Your task to perform on an android device: turn pop-ups off in chrome Image 0: 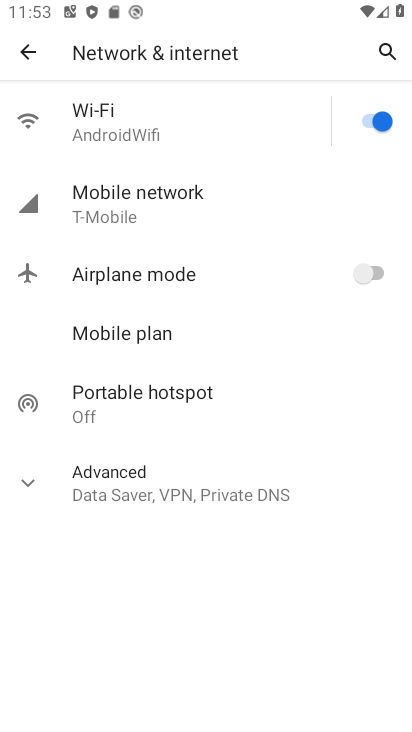
Step 0: press back button
Your task to perform on an android device: turn pop-ups off in chrome Image 1: 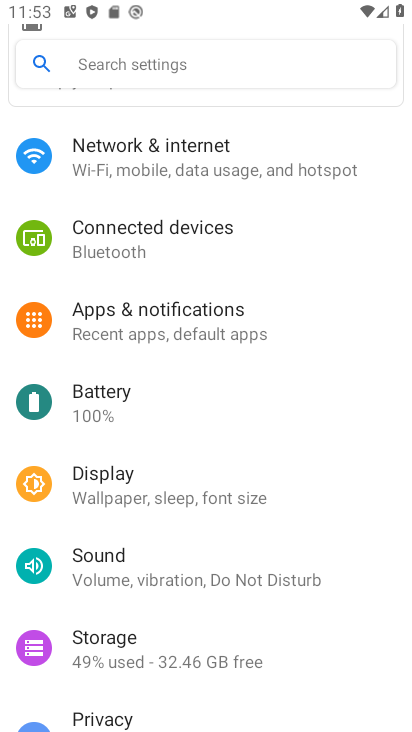
Step 1: click (241, 328)
Your task to perform on an android device: turn pop-ups off in chrome Image 2: 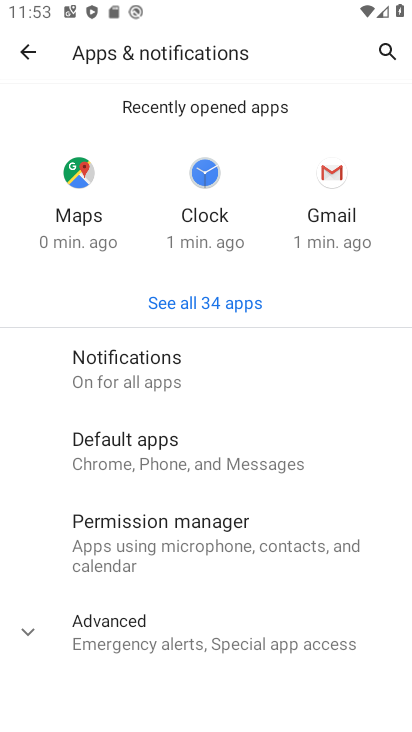
Step 2: click (303, 625)
Your task to perform on an android device: turn pop-ups off in chrome Image 3: 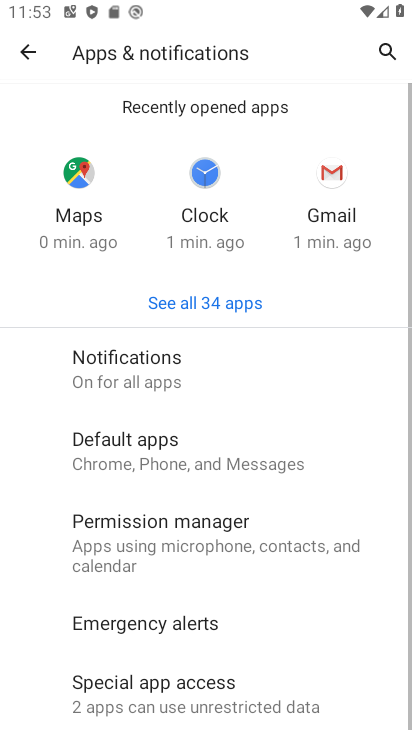
Step 3: drag from (314, 610) to (316, 477)
Your task to perform on an android device: turn pop-ups off in chrome Image 4: 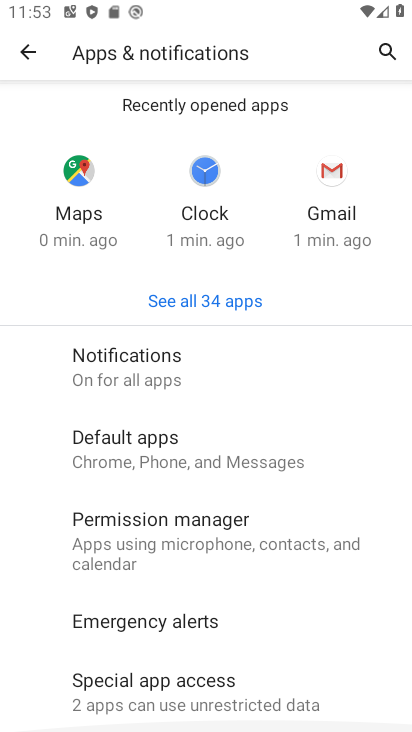
Step 4: click (265, 716)
Your task to perform on an android device: turn pop-ups off in chrome Image 5: 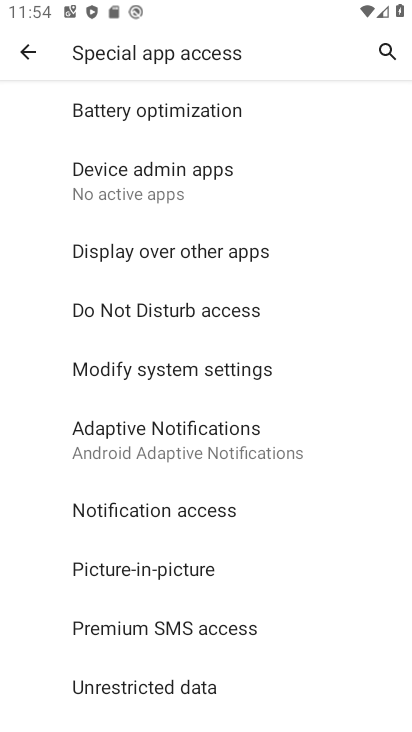
Step 5: click (206, 573)
Your task to perform on an android device: turn pop-ups off in chrome Image 6: 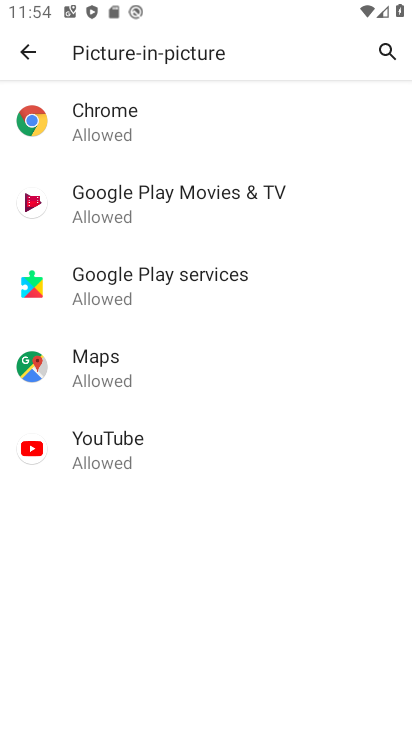
Step 6: click (117, 461)
Your task to perform on an android device: turn pop-ups off in chrome Image 7: 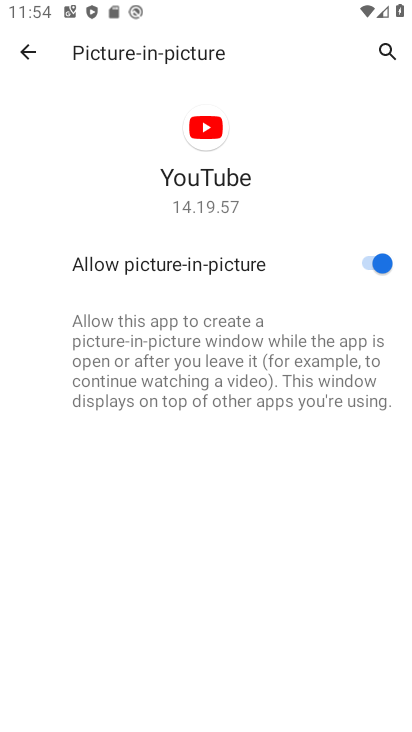
Step 7: click (382, 266)
Your task to perform on an android device: turn pop-ups off in chrome Image 8: 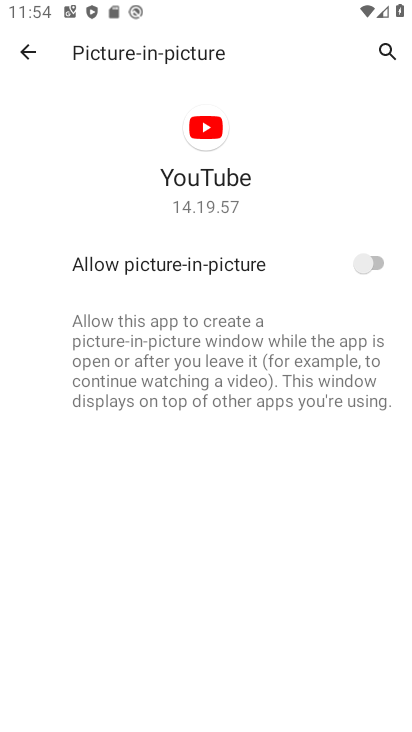
Step 8: task complete